Your task to perform on an android device: Open settings Image 0: 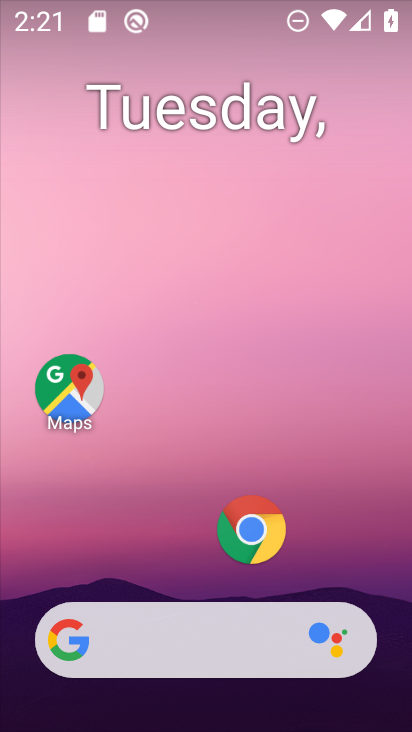
Step 0: drag from (322, 678) to (242, 255)
Your task to perform on an android device: Open settings Image 1: 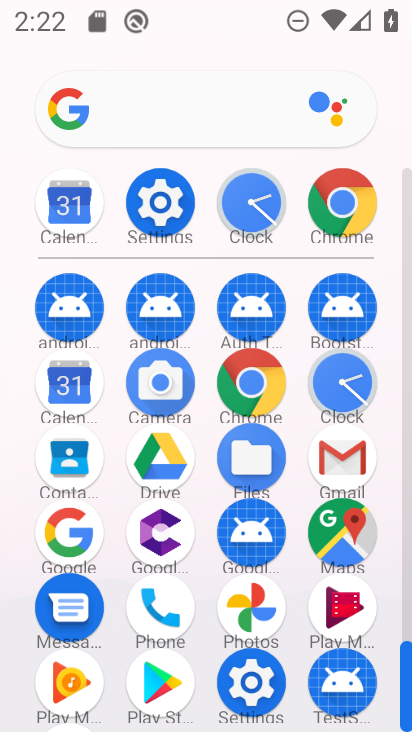
Step 1: click (149, 198)
Your task to perform on an android device: Open settings Image 2: 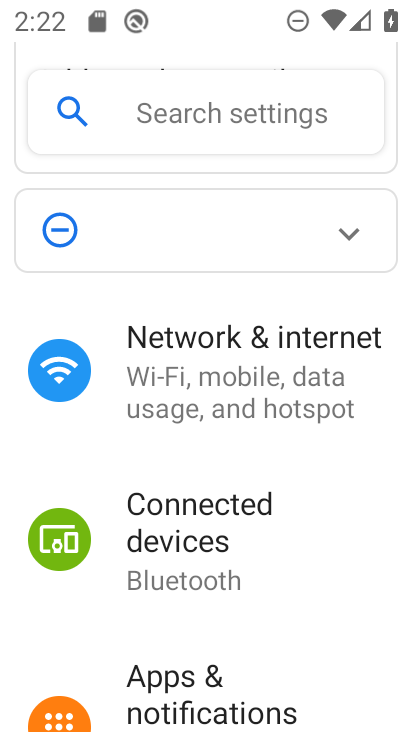
Step 2: task complete